Your task to perform on an android device: Search for Italian restaurants on Maps Image 0: 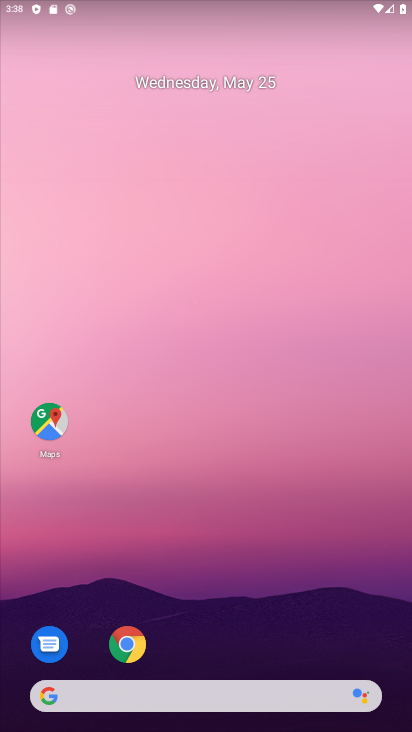
Step 0: click (51, 432)
Your task to perform on an android device: Search for Italian restaurants on Maps Image 1: 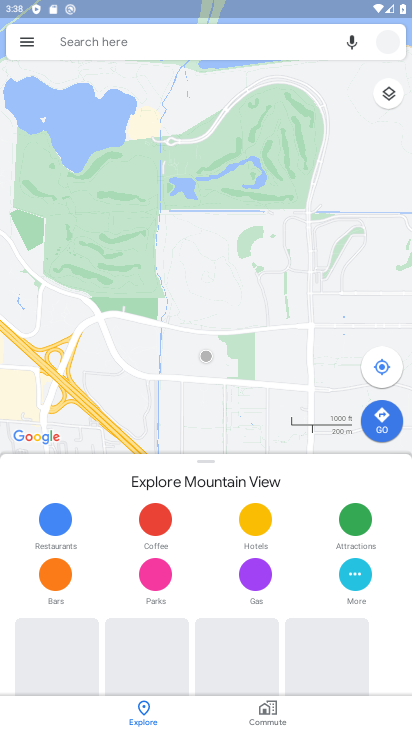
Step 1: click (85, 43)
Your task to perform on an android device: Search for Italian restaurants on Maps Image 2: 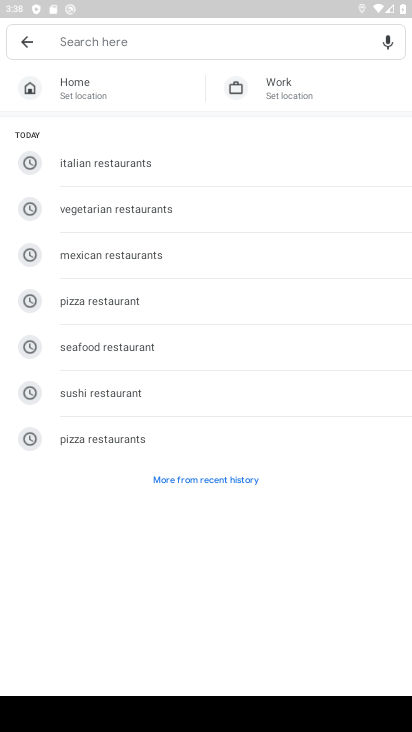
Step 2: type "italian restaurants "
Your task to perform on an android device: Search for Italian restaurants on Maps Image 3: 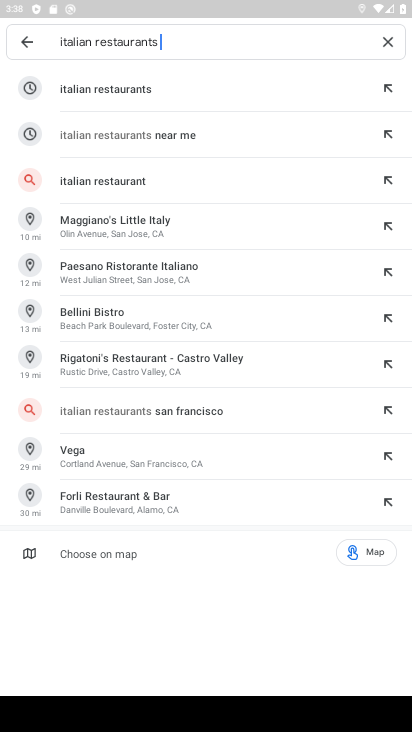
Step 3: click (109, 92)
Your task to perform on an android device: Search for Italian restaurants on Maps Image 4: 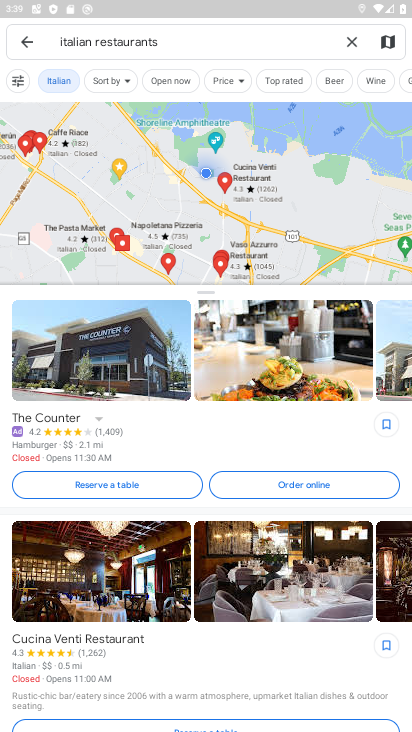
Step 4: task complete